Your task to perform on an android device: check the backup settings in the google photos Image 0: 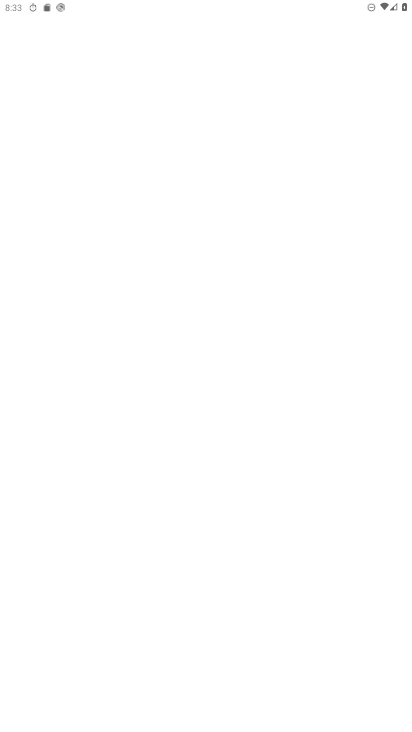
Step 0: drag from (236, 552) to (293, 157)
Your task to perform on an android device: check the backup settings in the google photos Image 1: 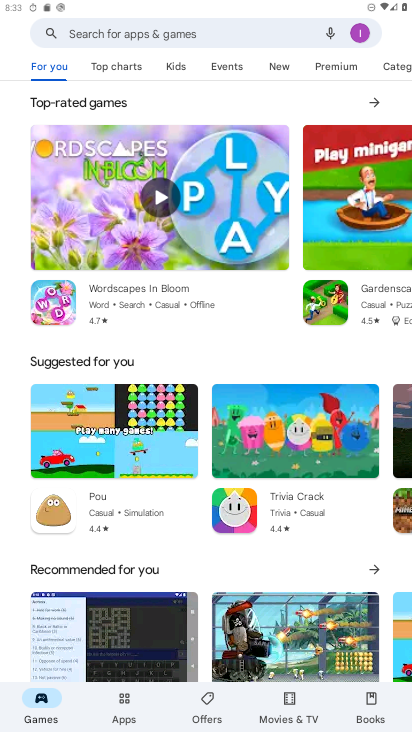
Step 1: press home button
Your task to perform on an android device: check the backup settings in the google photos Image 2: 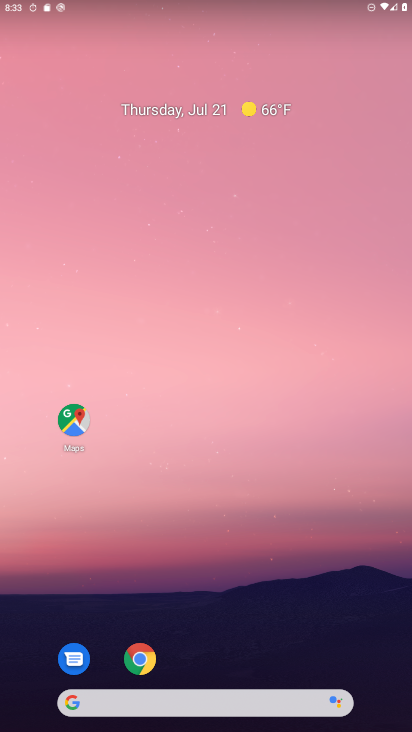
Step 2: drag from (199, 658) to (257, 33)
Your task to perform on an android device: check the backup settings in the google photos Image 3: 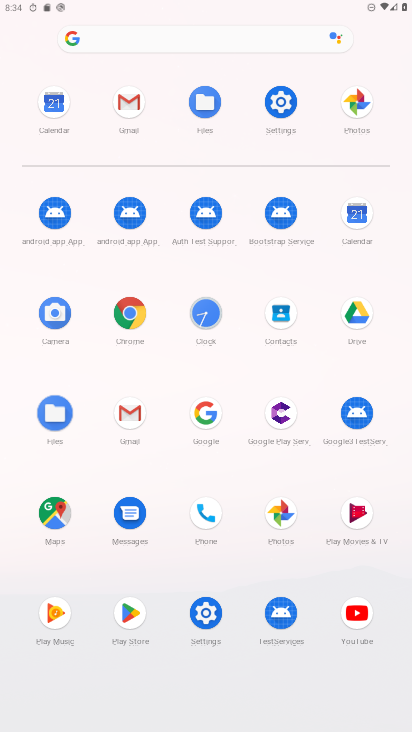
Step 3: click (272, 512)
Your task to perform on an android device: check the backup settings in the google photos Image 4: 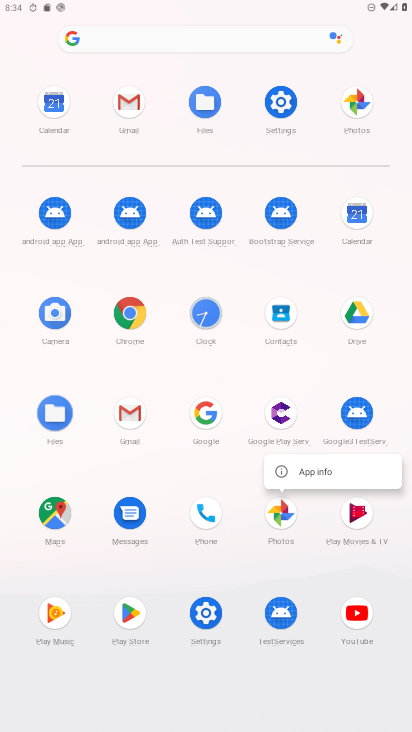
Step 4: click (310, 478)
Your task to perform on an android device: check the backup settings in the google photos Image 5: 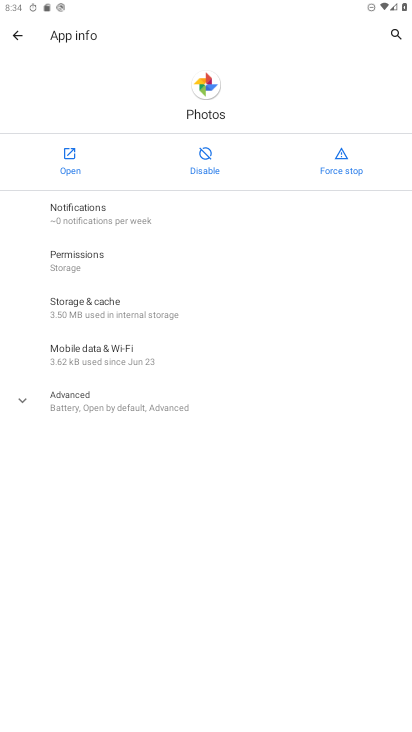
Step 5: click (65, 167)
Your task to perform on an android device: check the backup settings in the google photos Image 6: 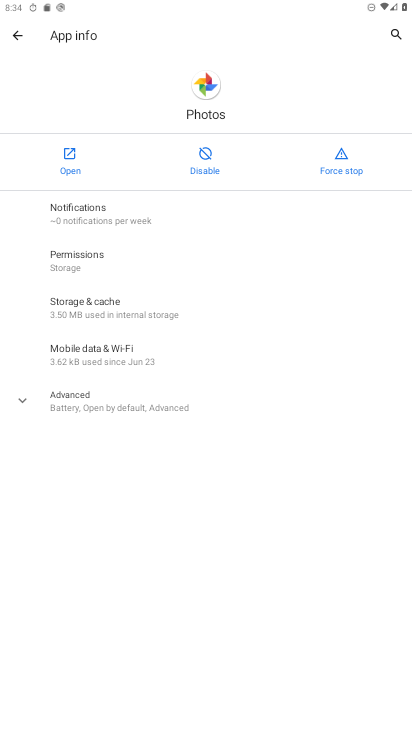
Step 6: click (65, 167)
Your task to perform on an android device: check the backup settings in the google photos Image 7: 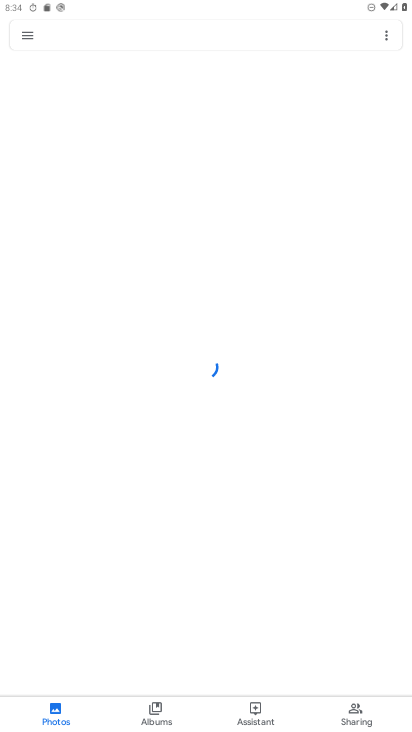
Step 7: drag from (255, 546) to (285, 267)
Your task to perform on an android device: check the backup settings in the google photos Image 8: 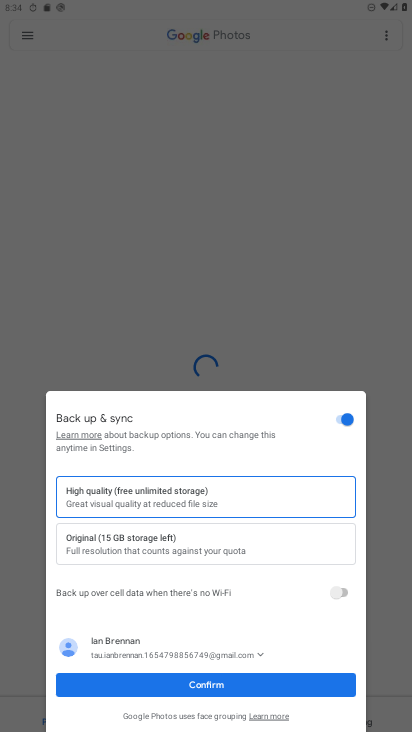
Step 8: click (168, 681)
Your task to perform on an android device: check the backup settings in the google photos Image 9: 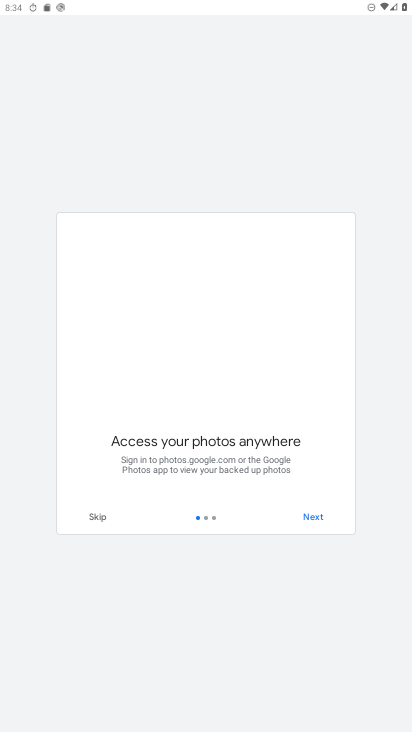
Step 9: click (300, 519)
Your task to perform on an android device: check the backup settings in the google photos Image 10: 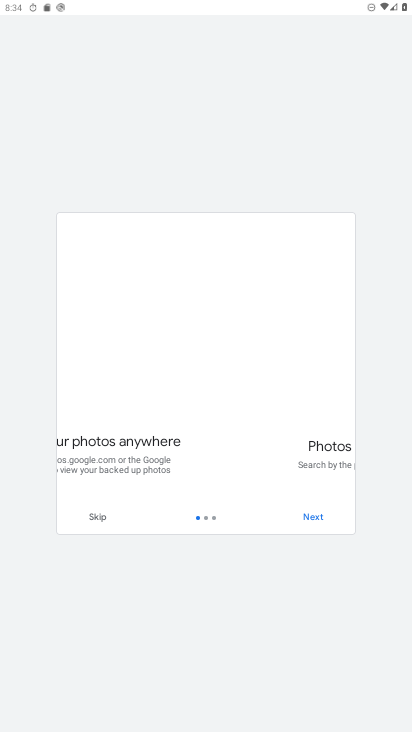
Step 10: click (330, 518)
Your task to perform on an android device: check the backup settings in the google photos Image 11: 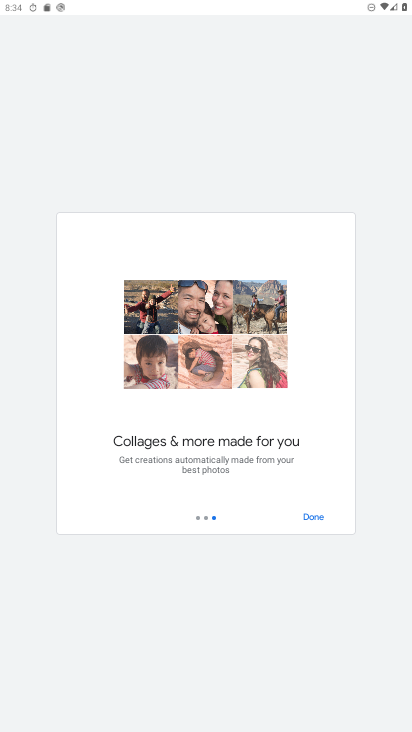
Step 11: click (330, 518)
Your task to perform on an android device: check the backup settings in the google photos Image 12: 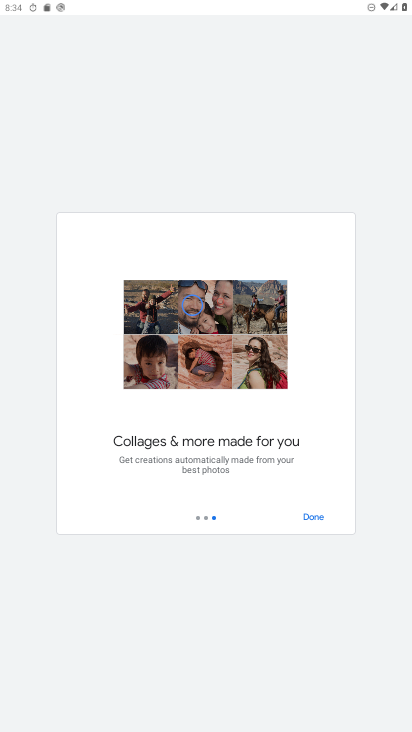
Step 12: click (328, 516)
Your task to perform on an android device: check the backup settings in the google photos Image 13: 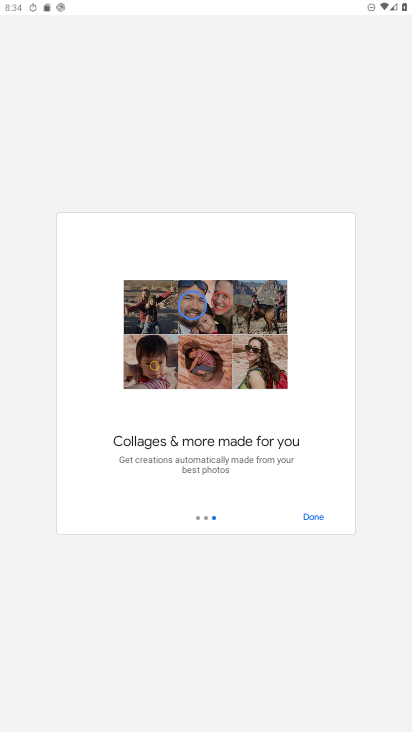
Step 13: click (328, 516)
Your task to perform on an android device: check the backup settings in the google photos Image 14: 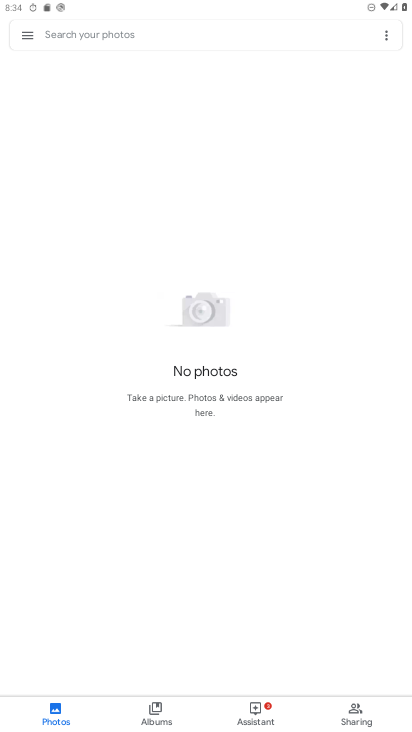
Step 14: click (27, 35)
Your task to perform on an android device: check the backup settings in the google photos Image 15: 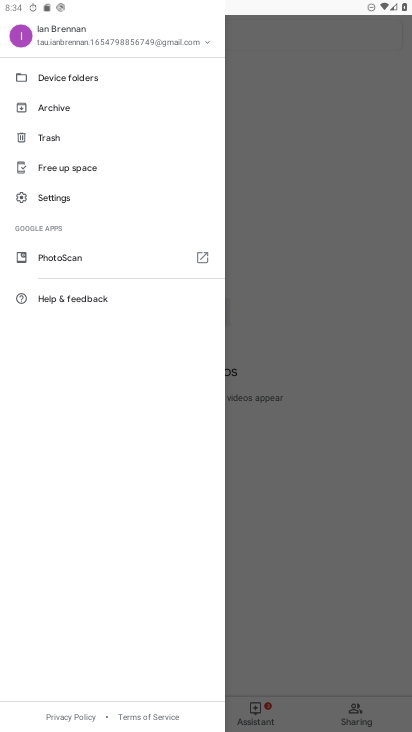
Step 15: click (66, 194)
Your task to perform on an android device: check the backup settings in the google photos Image 16: 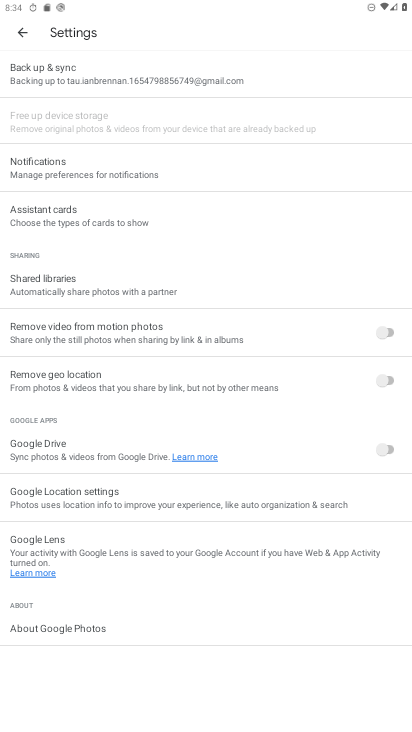
Step 16: drag from (183, 607) to (247, 202)
Your task to perform on an android device: check the backup settings in the google photos Image 17: 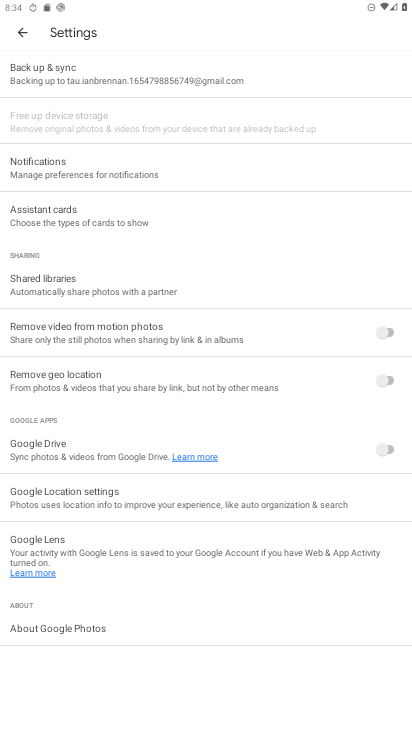
Step 17: drag from (245, 172) to (280, 658)
Your task to perform on an android device: check the backup settings in the google photos Image 18: 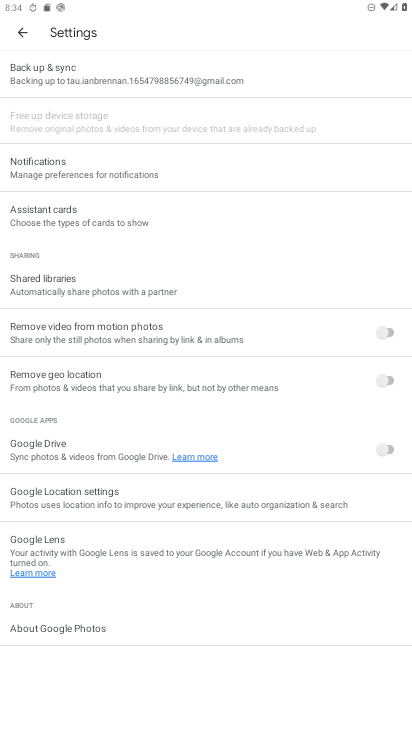
Step 18: drag from (261, 630) to (292, 189)
Your task to perform on an android device: check the backup settings in the google photos Image 19: 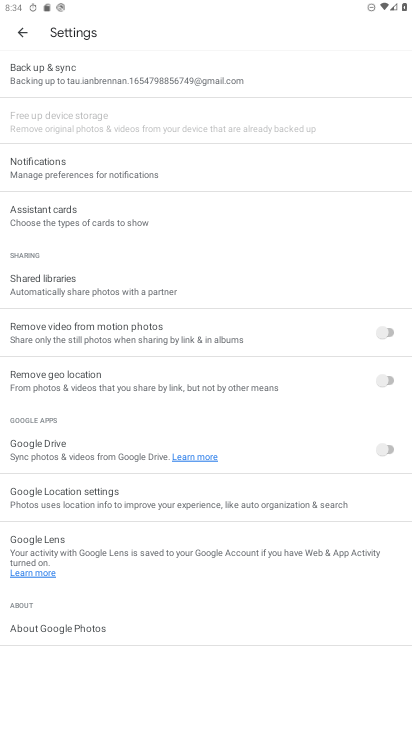
Step 19: drag from (292, 135) to (223, 608)
Your task to perform on an android device: check the backup settings in the google photos Image 20: 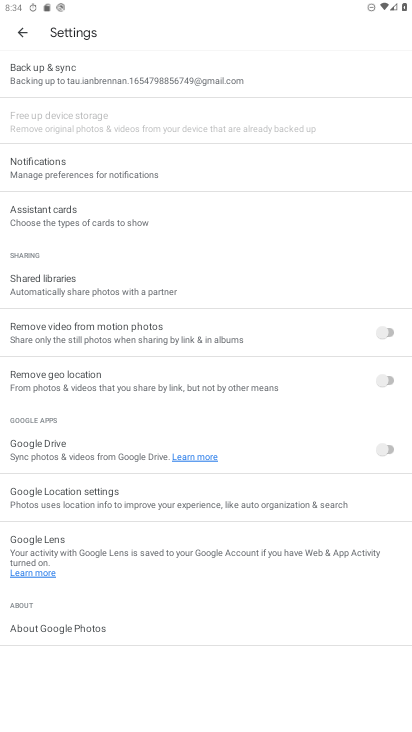
Step 20: click (34, 70)
Your task to perform on an android device: check the backup settings in the google photos Image 21: 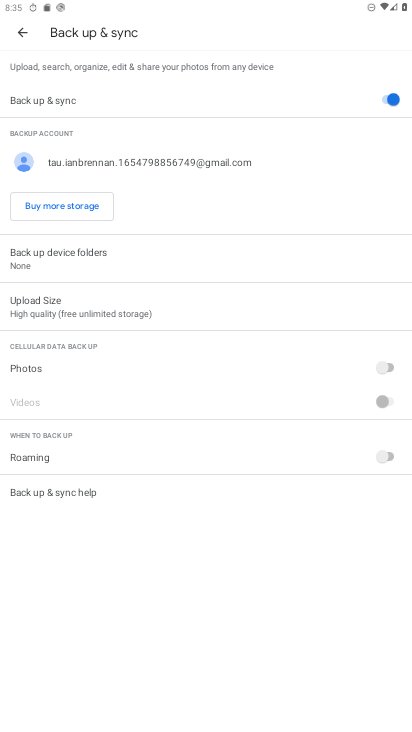
Step 21: task complete